Your task to perform on an android device: delete browsing data in the chrome app Image 0: 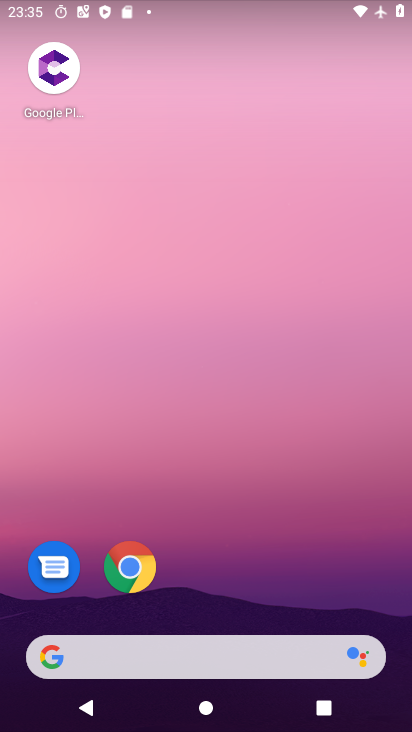
Step 0: drag from (223, 336) to (232, 241)
Your task to perform on an android device: delete browsing data in the chrome app Image 1: 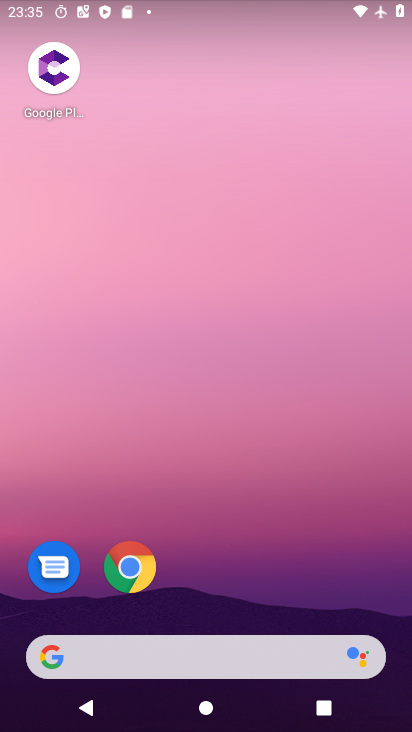
Step 1: drag from (243, 435) to (258, 294)
Your task to perform on an android device: delete browsing data in the chrome app Image 2: 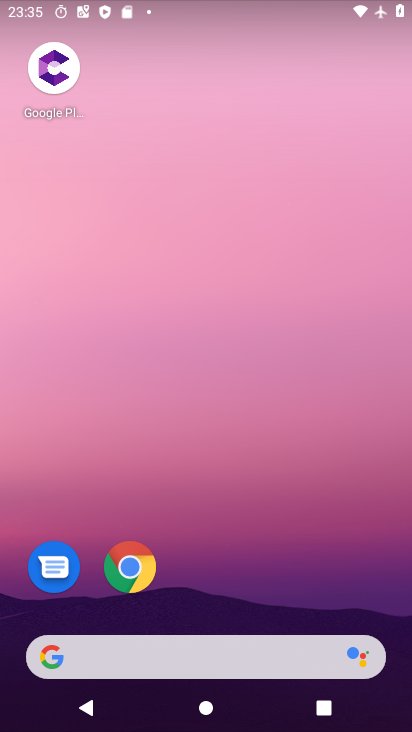
Step 2: drag from (250, 426) to (276, 224)
Your task to perform on an android device: delete browsing data in the chrome app Image 3: 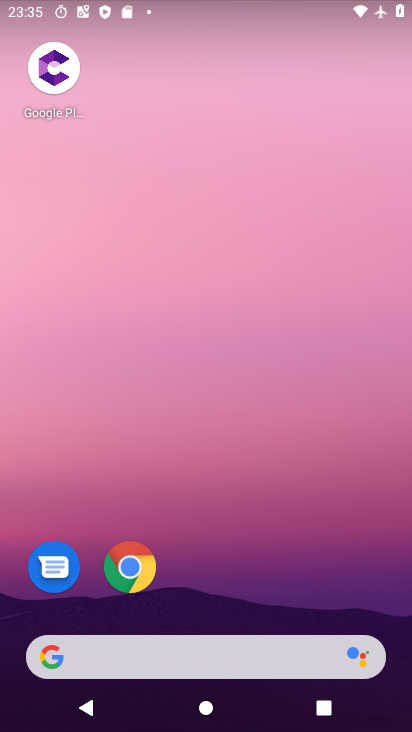
Step 3: drag from (211, 412) to (208, 269)
Your task to perform on an android device: delete browsing data in the chrome app Image 4: 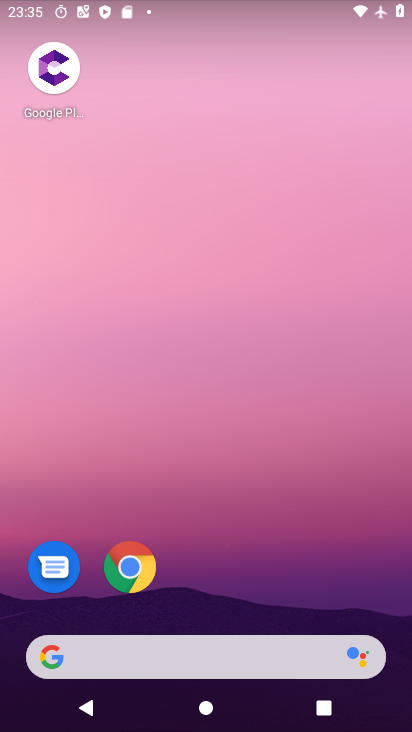
Step 4: drag from (202, 603) to (304, 165)
Your task to perform on an android device: delete browsing data in the chrome app Image 5: 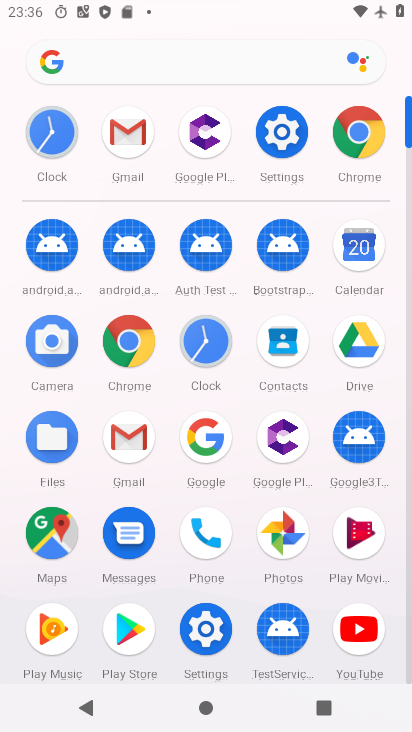
Step 5: click (365, 118)
Your task to perform on an android device: delete browsing data in the chrome app Image 6: 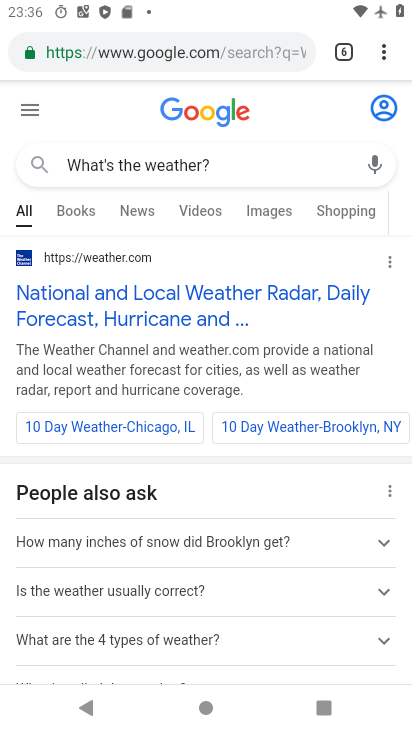
Step 6: click (386, 49)
Your task to perform on an android device: delete browsing data in the chrome app Image 7: 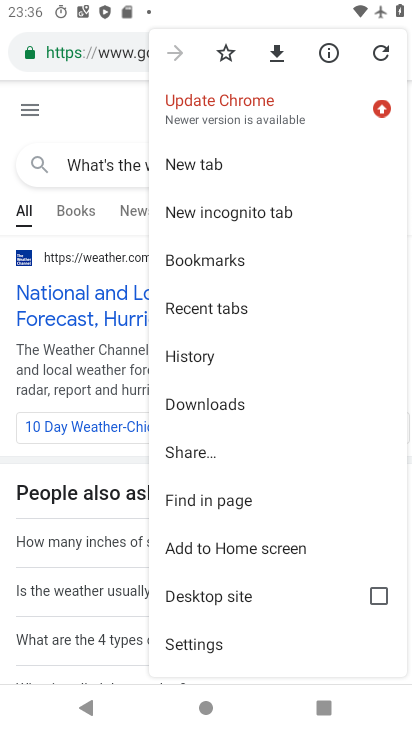
Step 7: click (219, 354)
Your task to perform on an android device: delete browsing data in the chrome app Image 8: 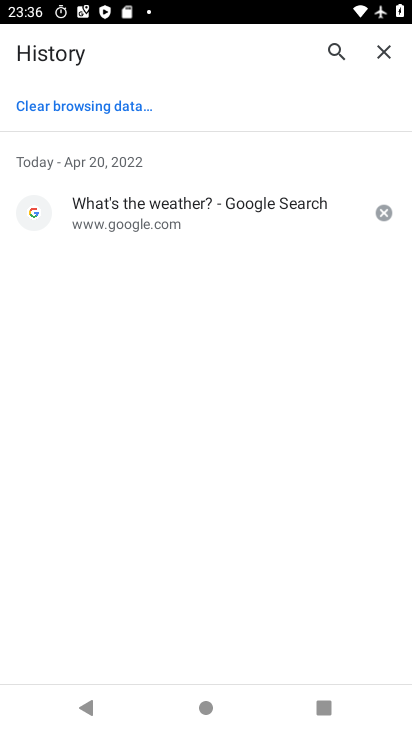
Step 8: click (89, 101)
Your task to perform on an android device: delete browsing data in the chrome app Image 9: 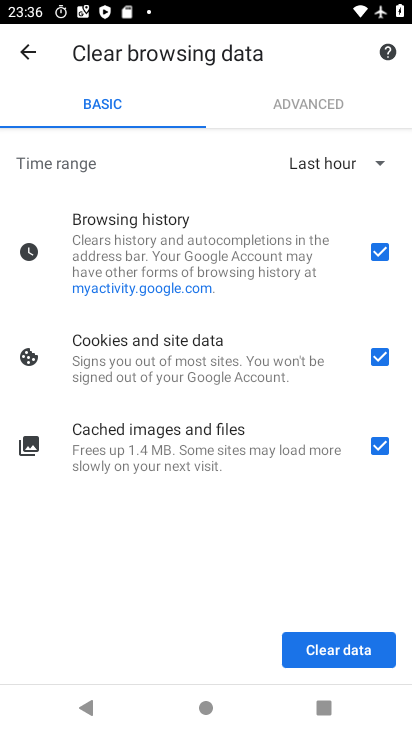
Step 9: click (326, 640)
Your task to perform on an android device: delete browsing data in the chrome app Image 10: 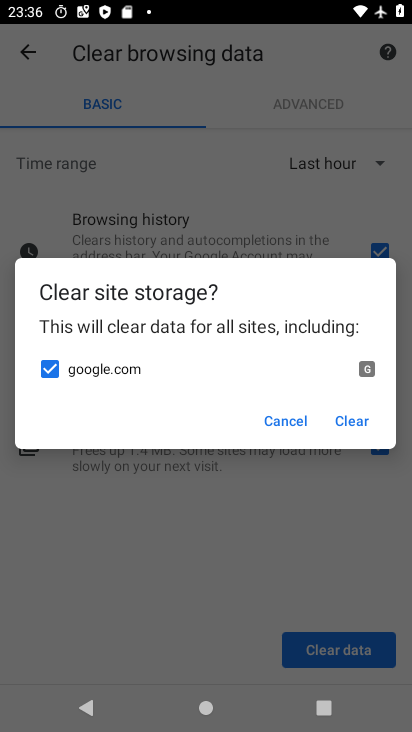
Step 10: click (360, 414)
Your task to perform on an android device: delete browsing data in the chrome app Image 11: 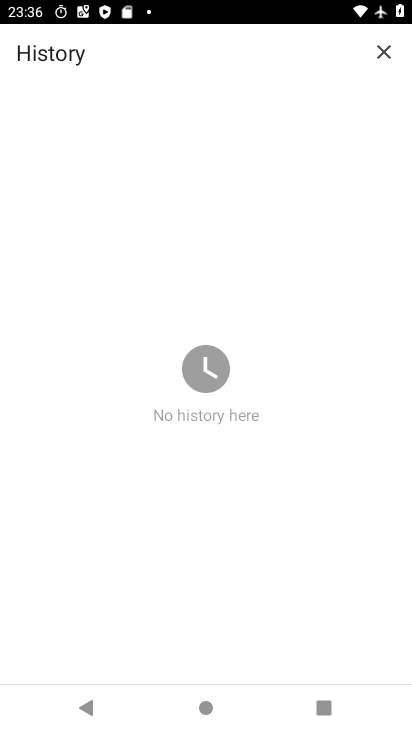
Step 11: task complete